Your task to perform on an android device: install app "Google News" Image 0: 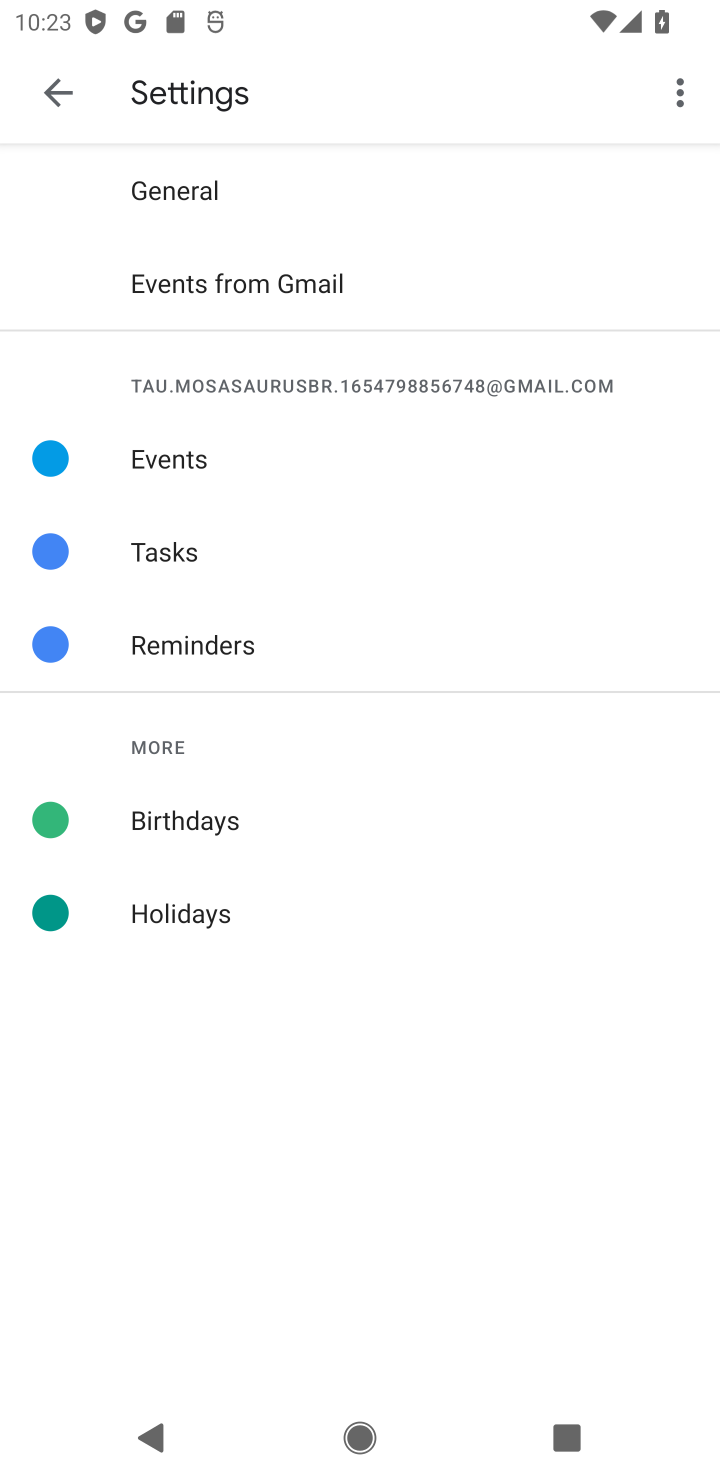
Step 0: press back button
Your task to perform on an android device: install app "Google News" Image 1: 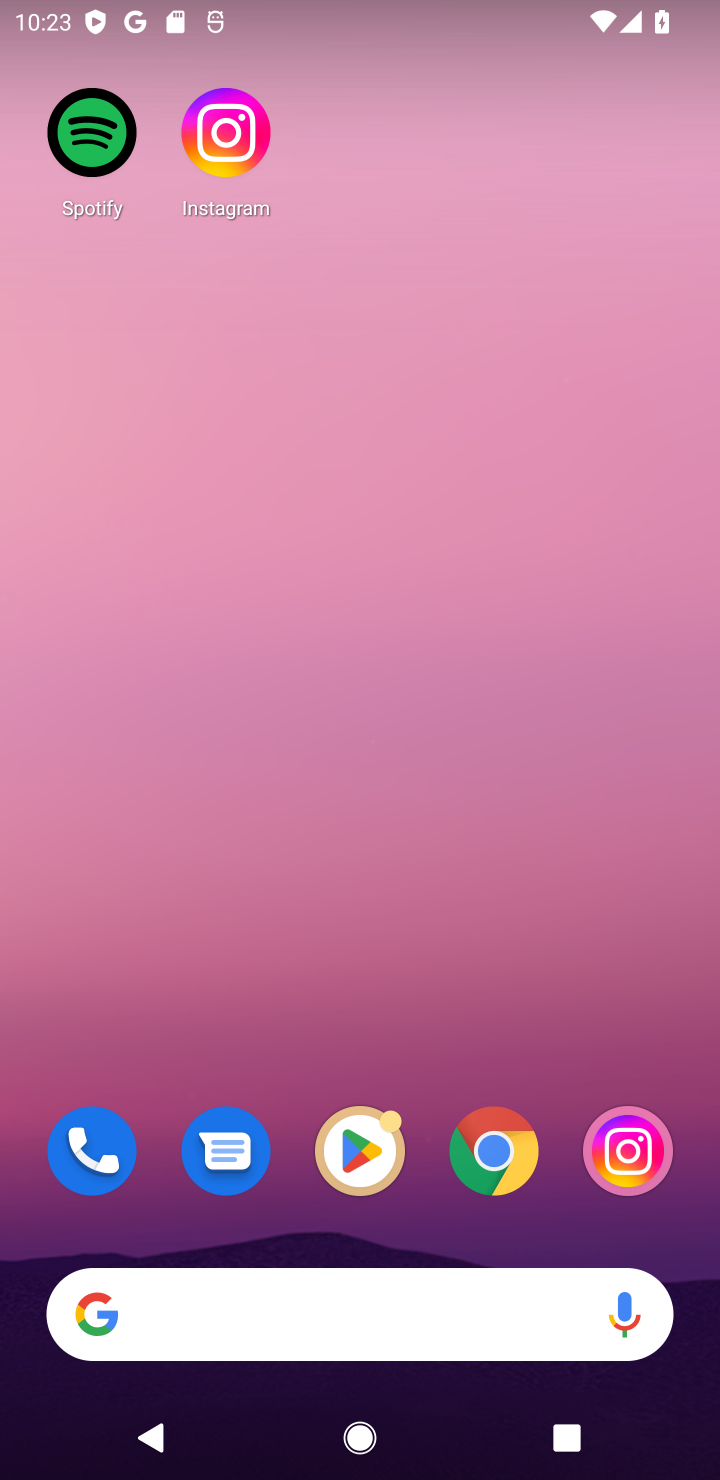
Step 1: click (315, 1315)
Your task to perform on an android device: install app "Google News" Image 2: 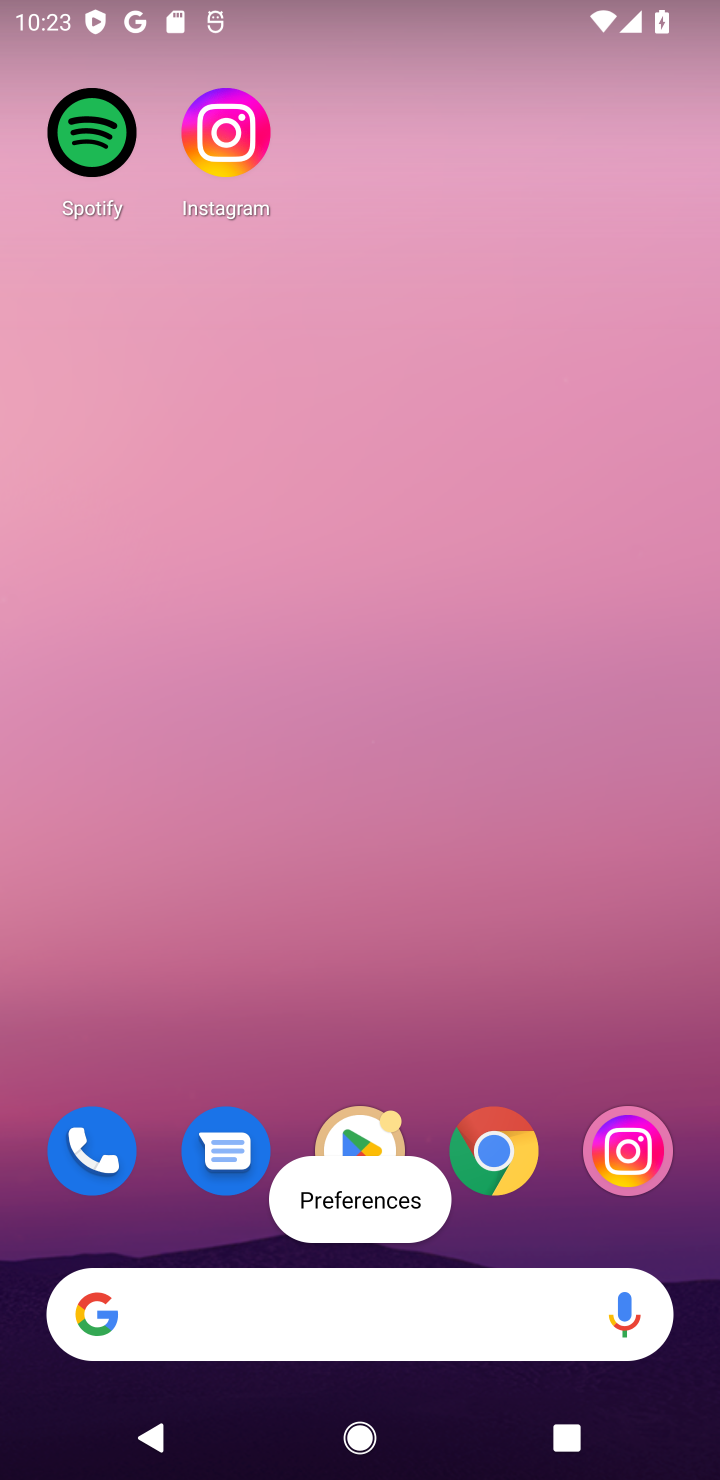
Step 2: click (361, 1121)
Your task to perform on an android device: install app "Google News" Image 3: 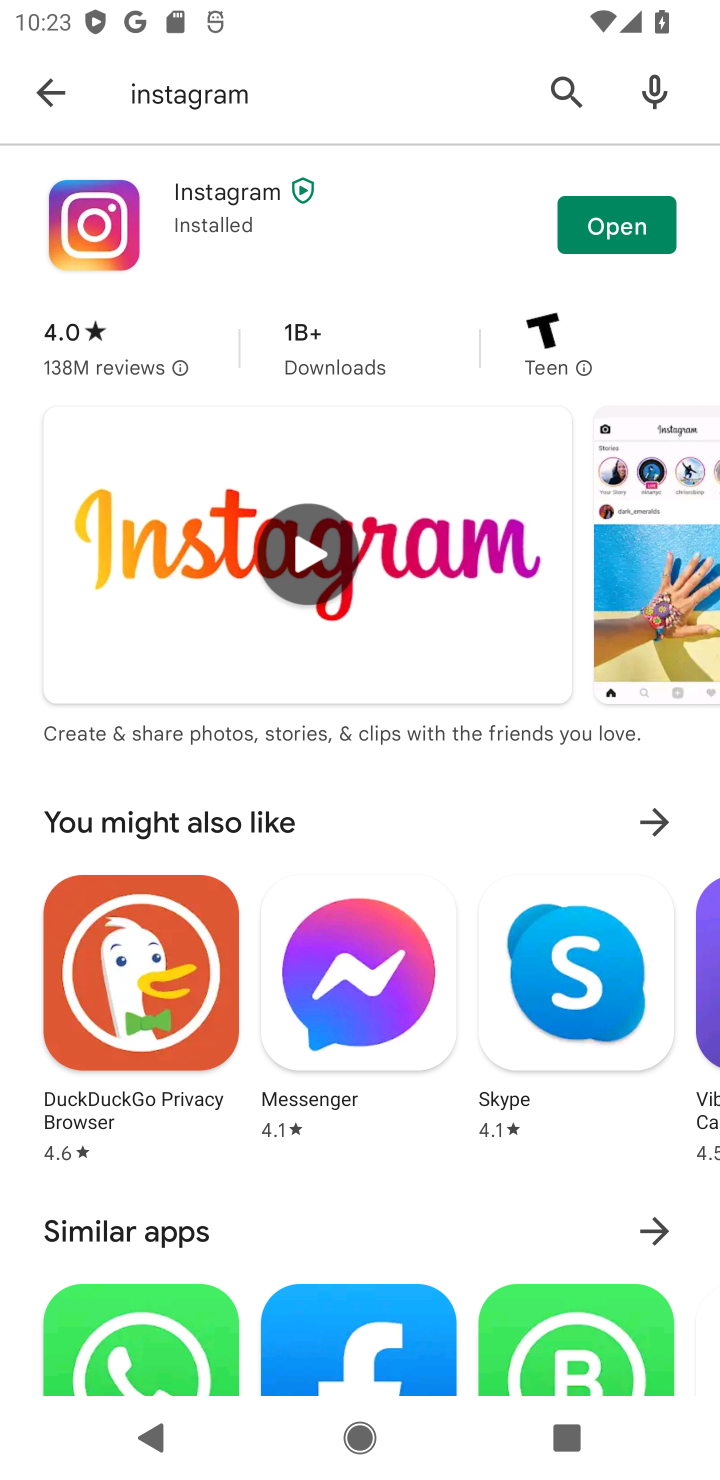
Step 3: click (556, 76)
Your task to perform on an android device: install app "Google News" Image 4: 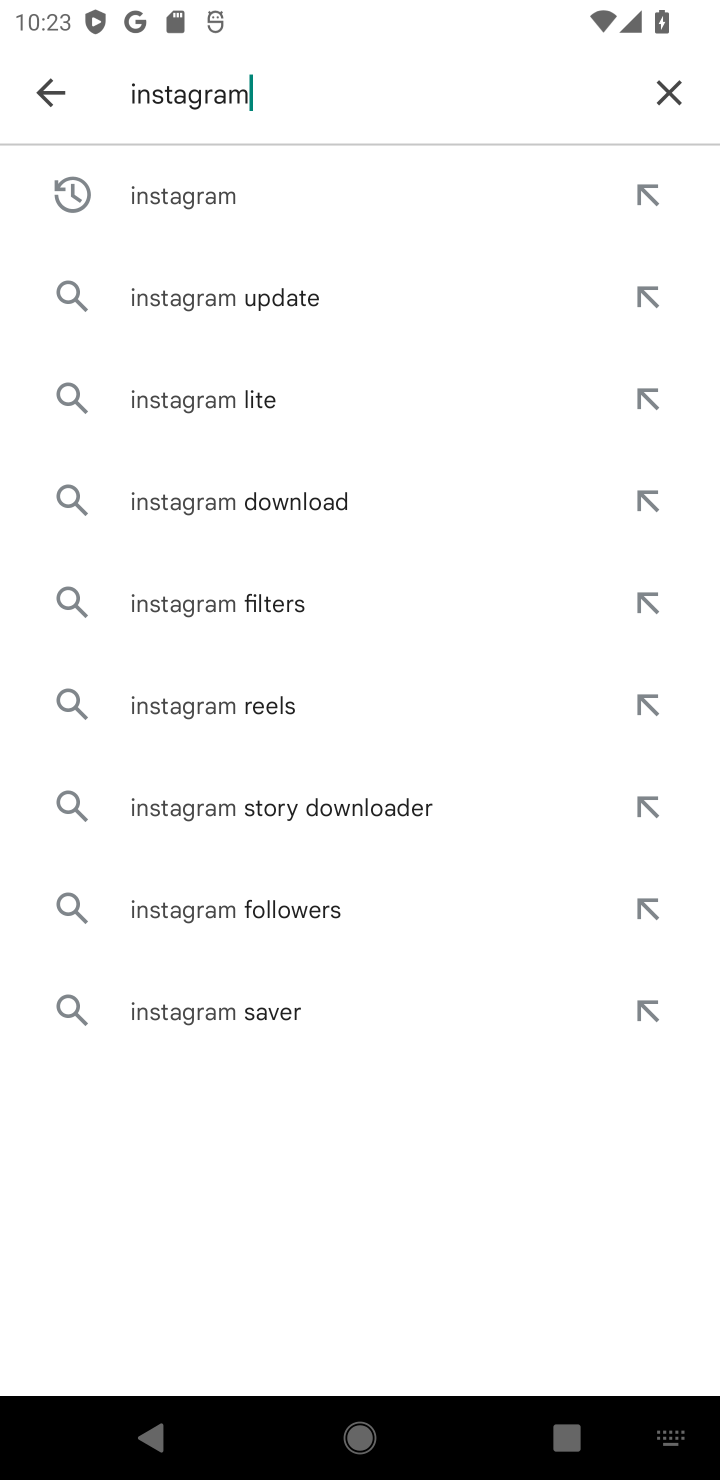
Step 4: click (679, 83)
Your task to perform on an android device: install app "Google News" Image 5: 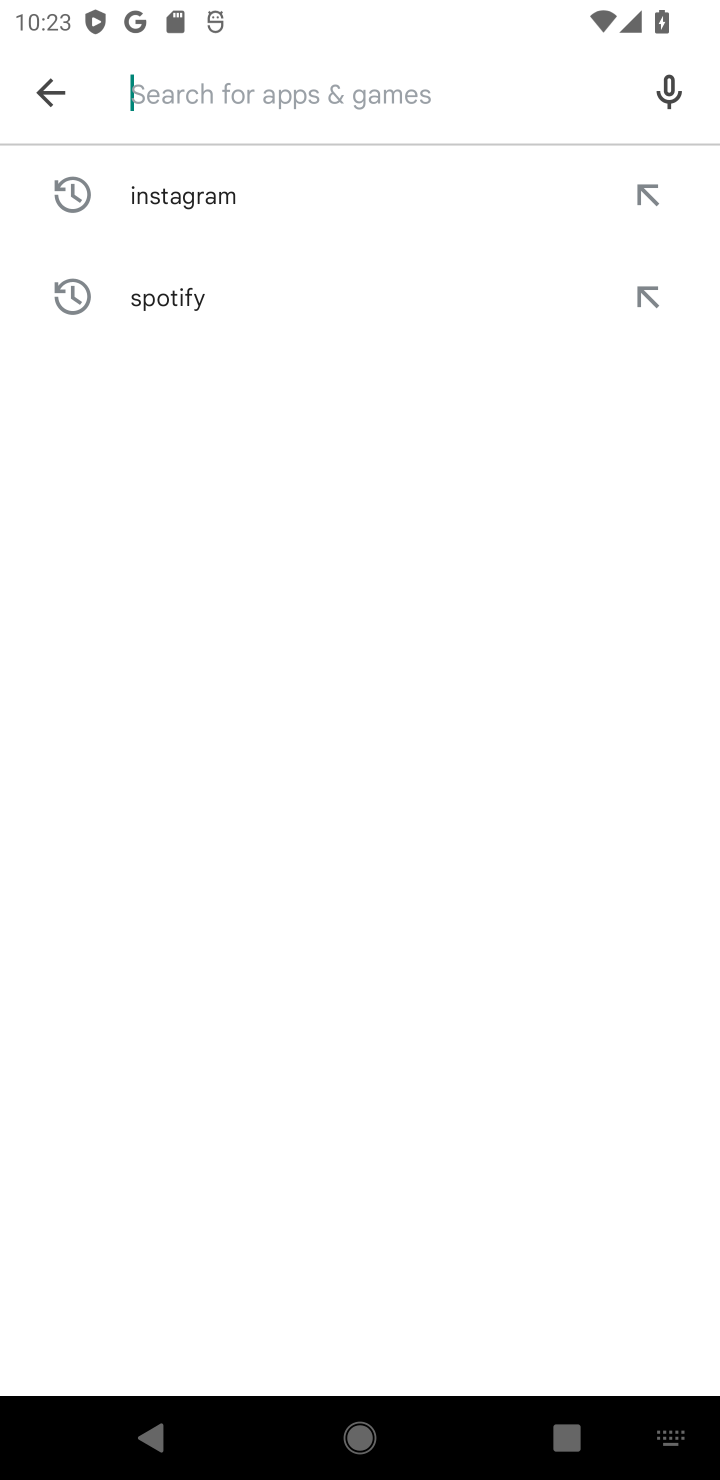
Step 5: click (229, 107)
Your task to perform on an android device: install app "Google News" Image 6: 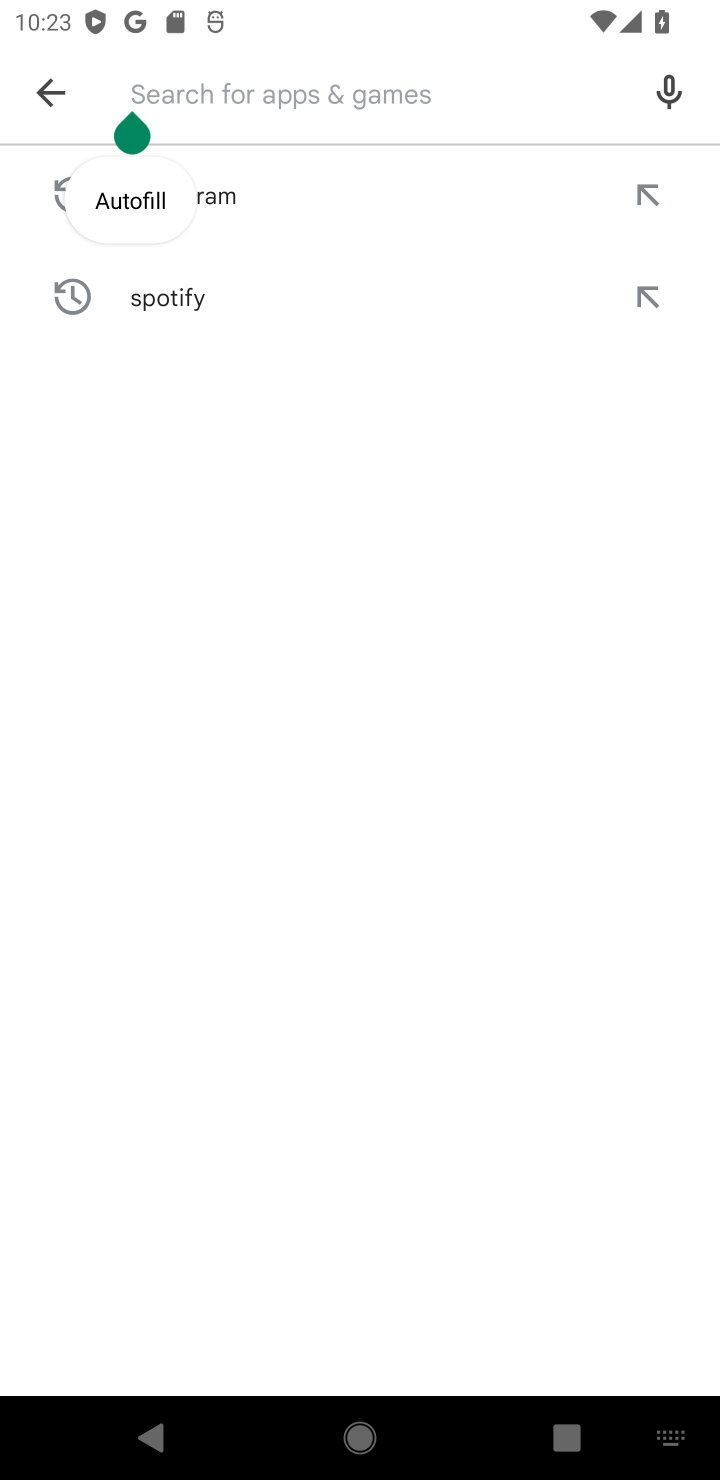
Step 6: type "Google News"
Your task to perform on an android device: install app "Google News" Image 7: 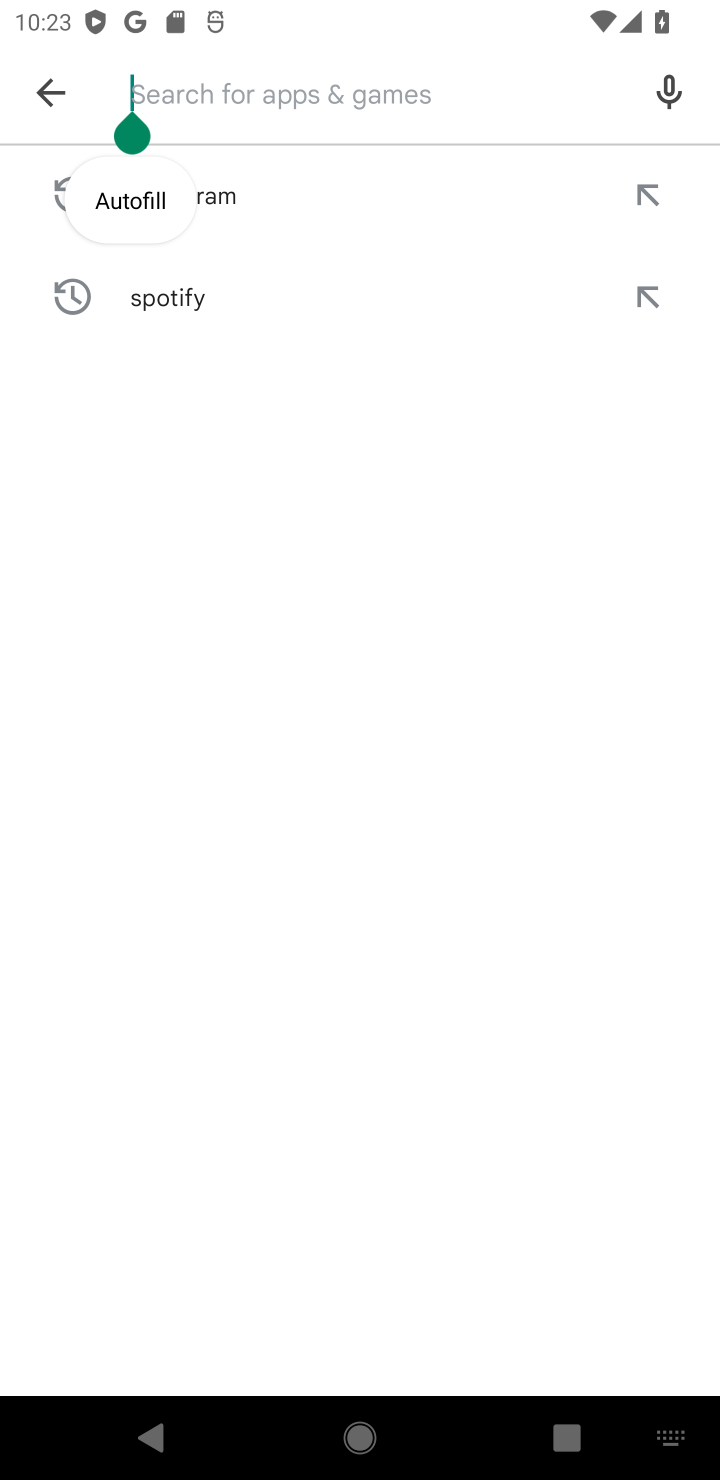
Step 7: click (369, 767)
Your task to perform on an android device: install app "Google News" Image 8: 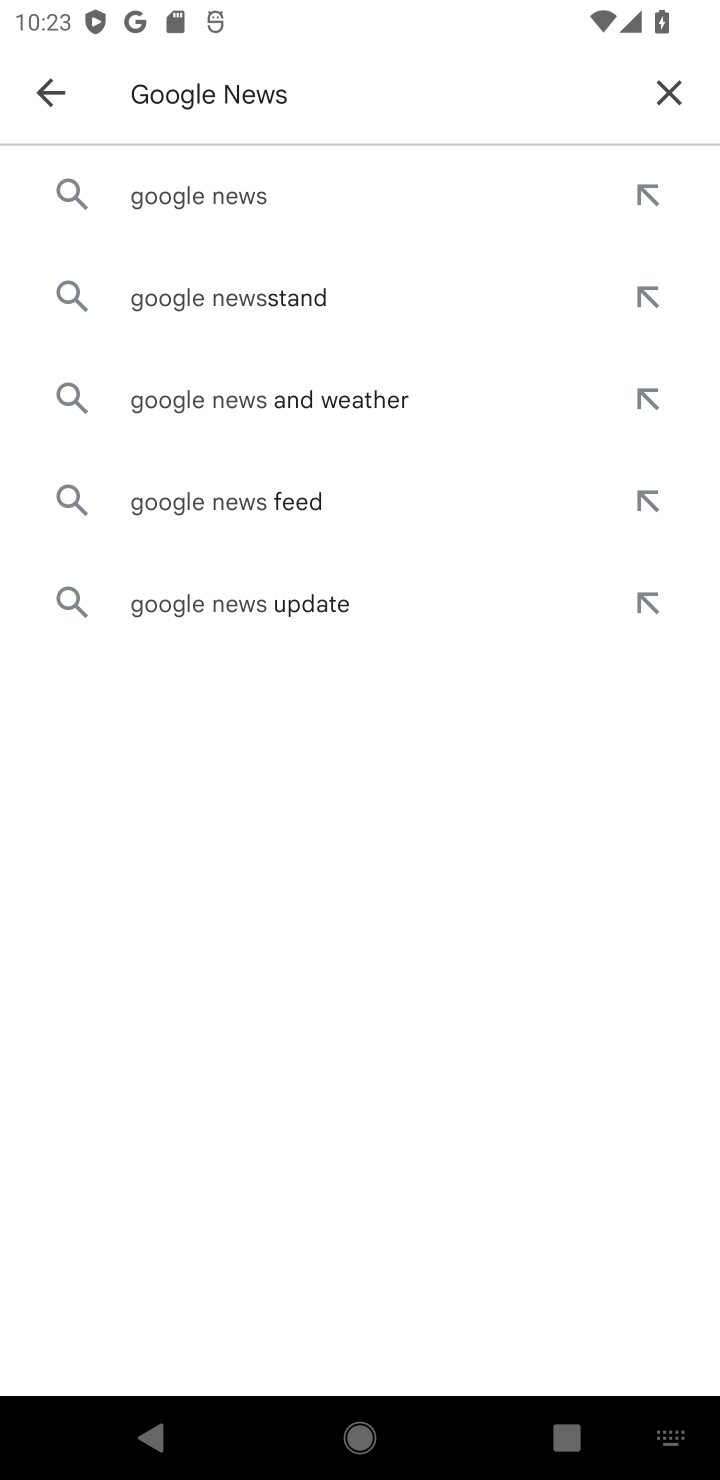
Step 8: click (230, 181)
Your task to perform on an android device: install app "Google News" Image 9: 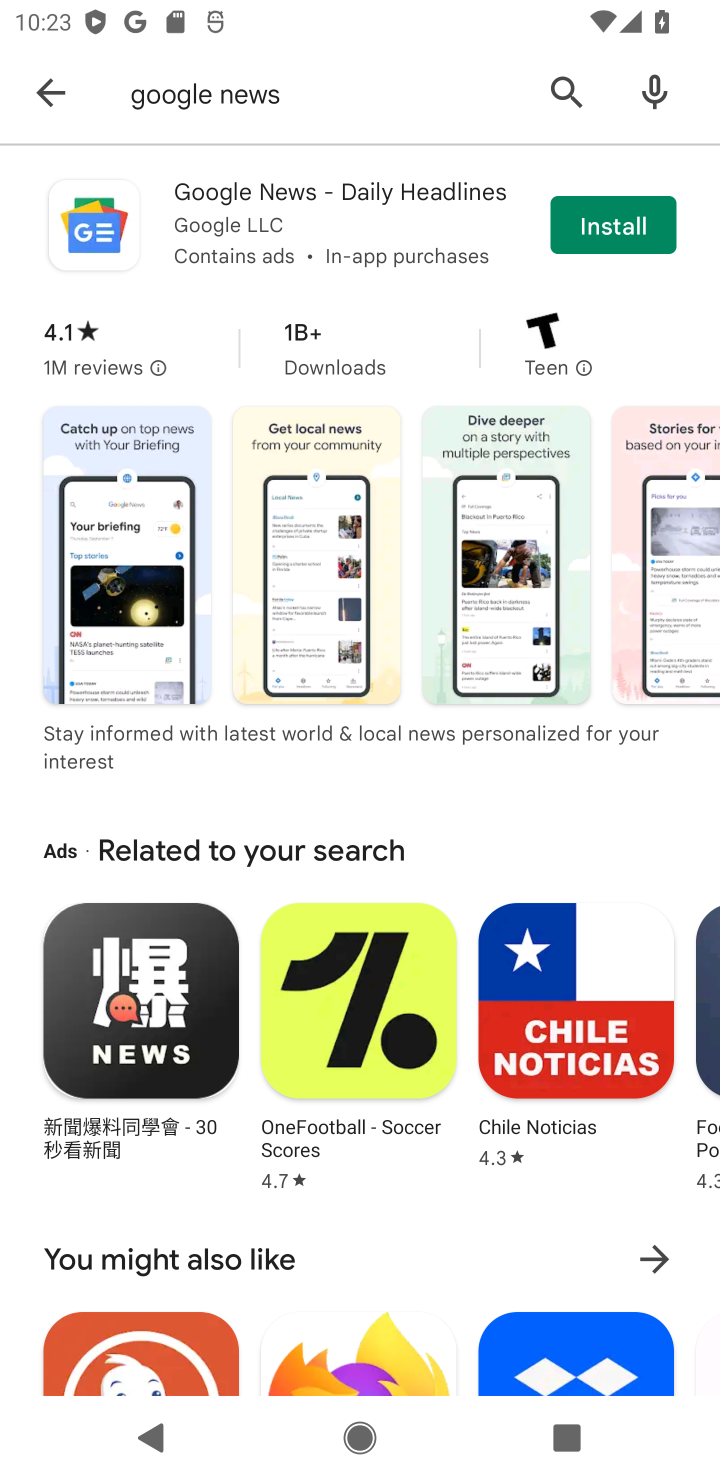
Step 9: click (609, 223)
Your task to perform on an android device: install app "Google News" Image 10: 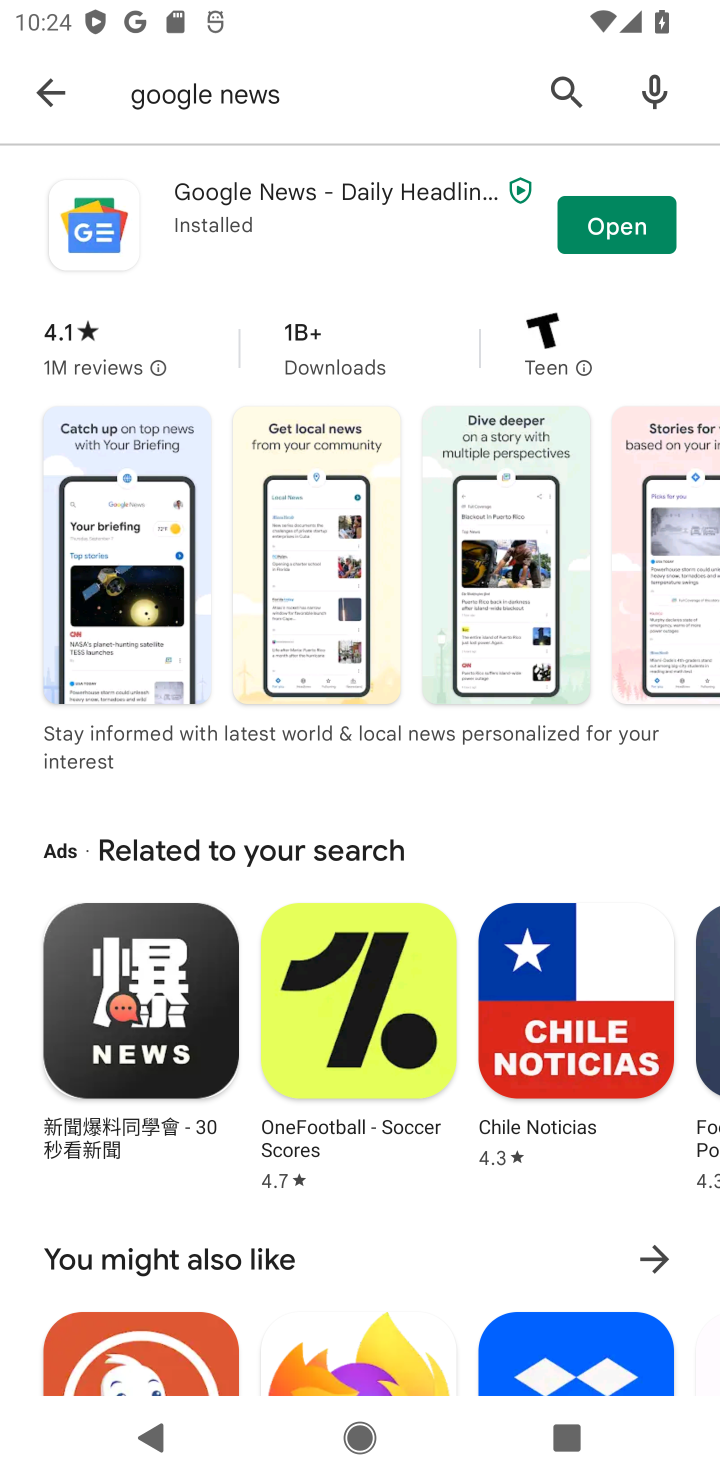
Step 10: click (579, 211)
Your task to perform on an android device: install app "Google News" Image 11: 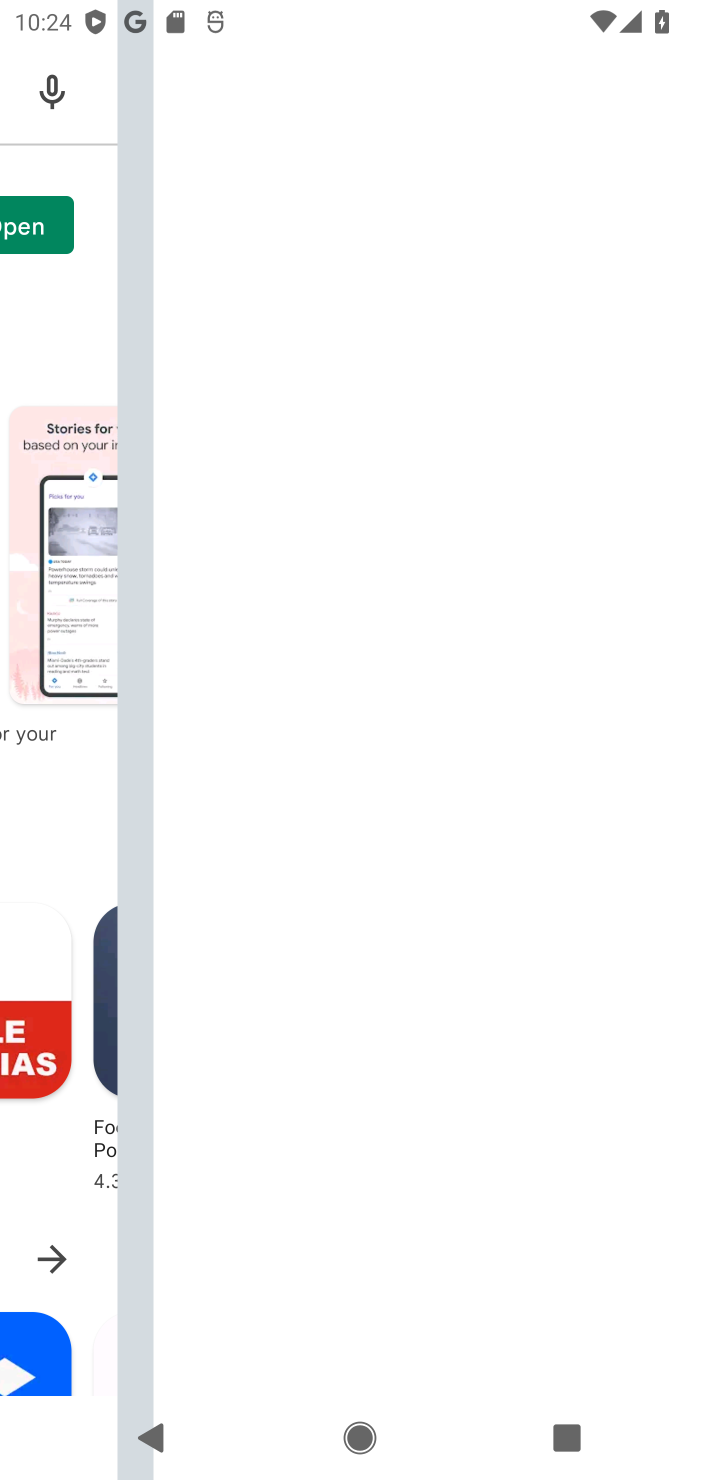
Step 11: task complete